Your task to perform on an android device: create a new album in the google photos Image 0: 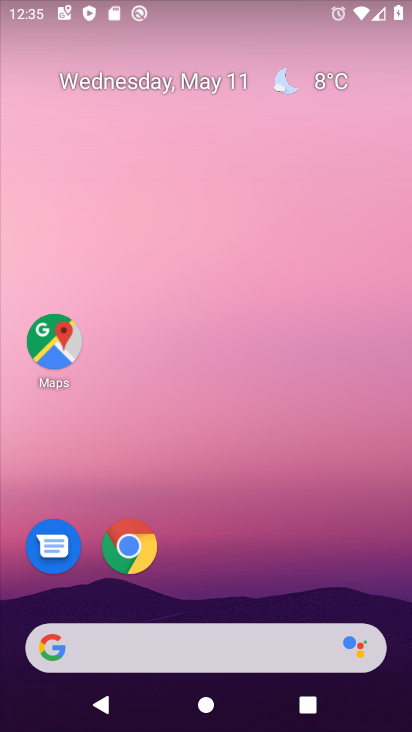
Step 0: press home button
Your task to perform on an android device: create a new album in the google photos Image 1: 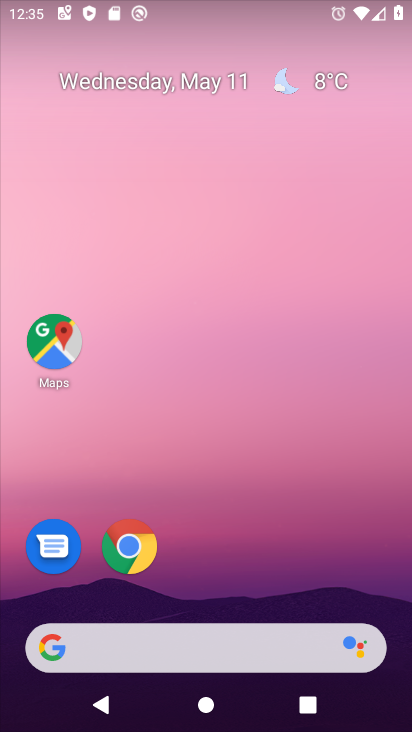
Step 1: drag from (207, 645) to (355, 69)
Your task to perform on an android device: create a new album in the google photos Image 2: 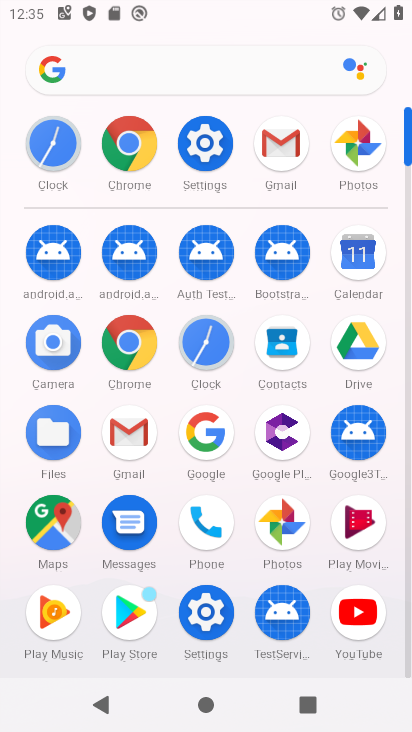
Step 2: click (280, 518)
Your task to perform on an android device: create a new album in the google photos Image 3: 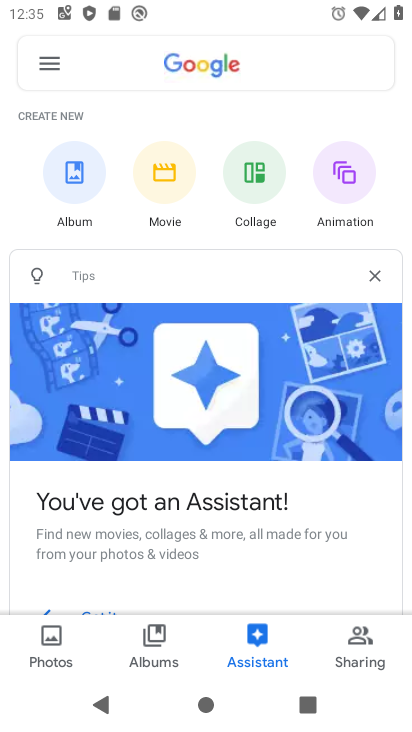
Step 3: click (144, 645)
Your task to perform on an android device: create a new album in the google photos Image 4: 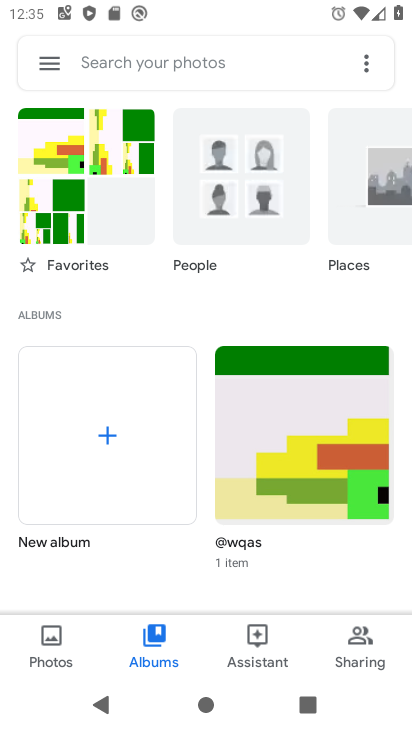
Step 4: click (98, 422)
Your task to perform on an android device: create a new album in the google photos Image 5: 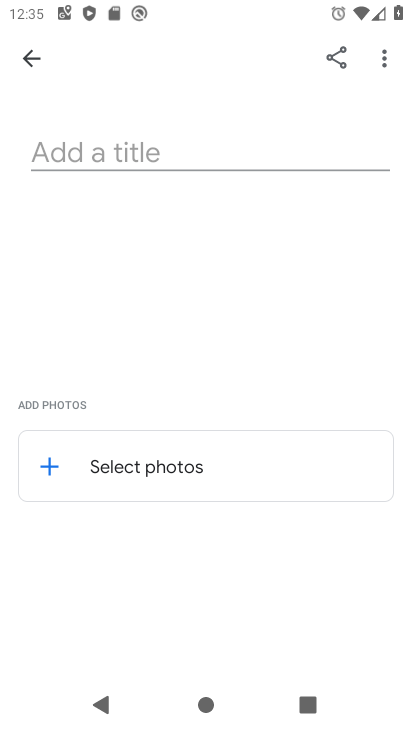
Step 5: click (125, 488)
Your task to perform on an android device: create a new album in the google photos Image 6: 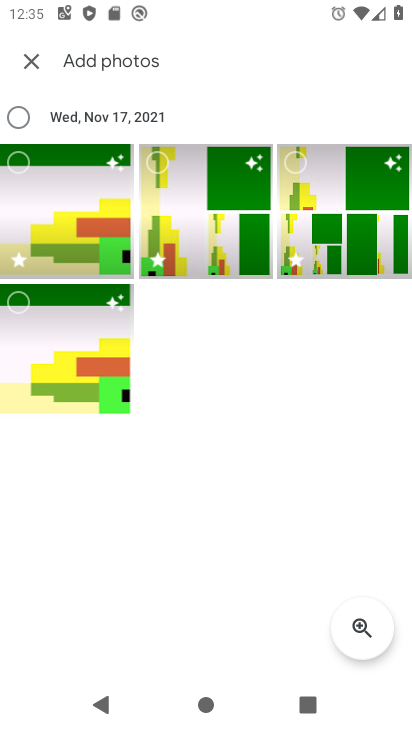
Step 6: click (27, 172)
Your task to perform on an android device: create a new album in the google photos Image 7: 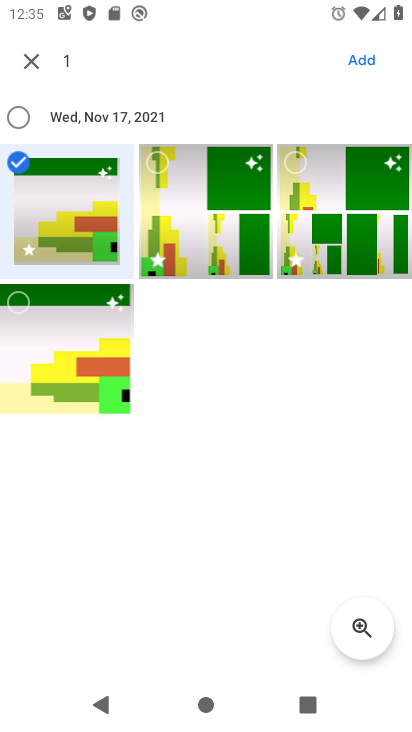
Step 7: click (186, 166)
Your task to perform on an android device: create a new album in the google photos Image 8: 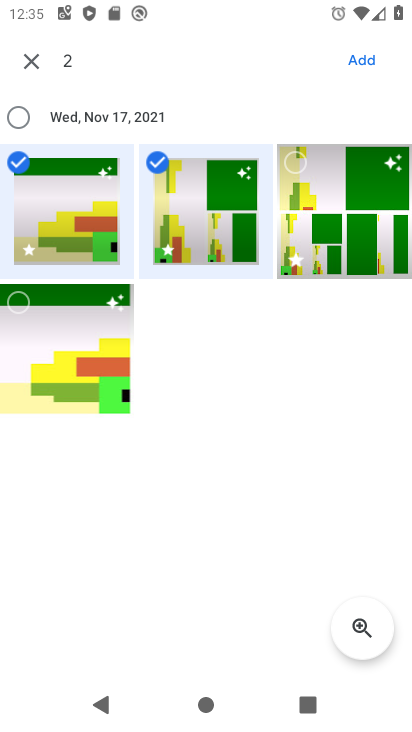
Step 8: click (373, 59)
Your task to perform on an android device: create a new album in the google photos Image 9: 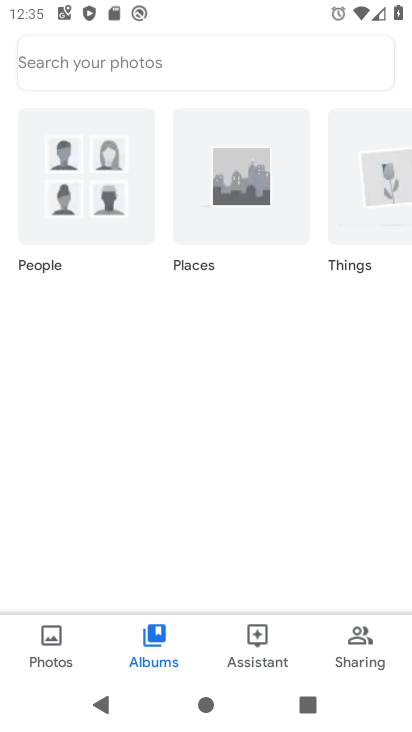
Step 9: task complete